Your task to perform on an android device: toggle translation in the chrome app Image 0: 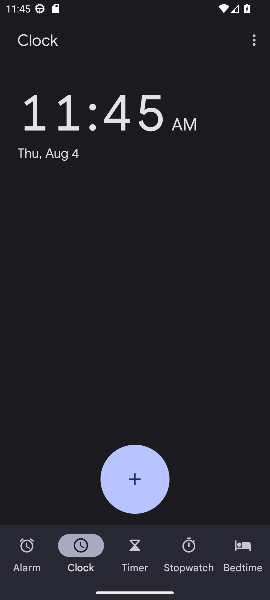
Step 0: press home button
Your task to perform on an android device: toggle translation in the chrome app Image 1: 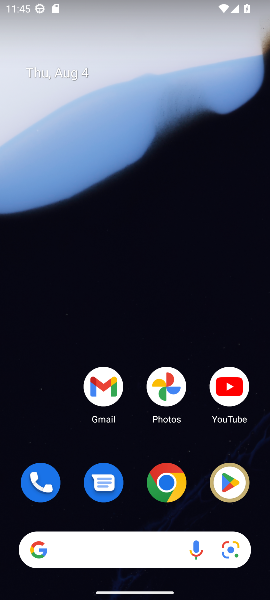
Step 1: click (182, 483)
Your task to perform on an android device: toggle translation in the chrome app Image 2: 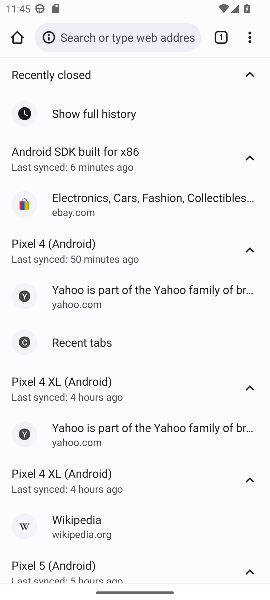
Step 2: click (255, 36)
Your task to perform on an android device: toggle translation in the chrome app Image 3: 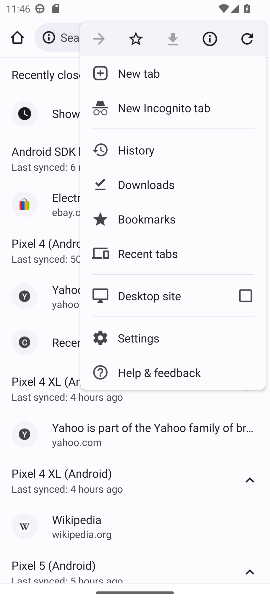
Step 3: click (147, 331)
Your task to perform on an android device: toggle translation in the chrome app Image 4: 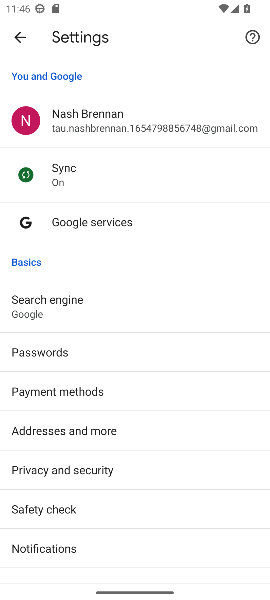
Step 4: drag from (108, 520) to (112, 275)
Your task to perform on an android device: toggle translation in the chrome app Image 5: 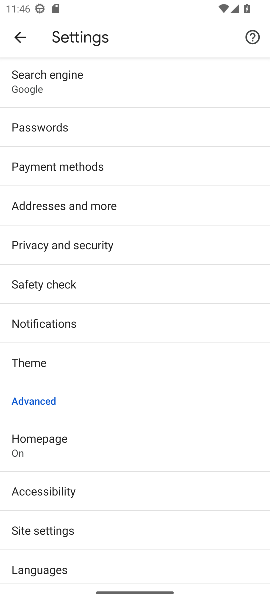
Step 5: click (77, 572)
Your task to perform on an android device: toggle translation in the chrome app Image 6: 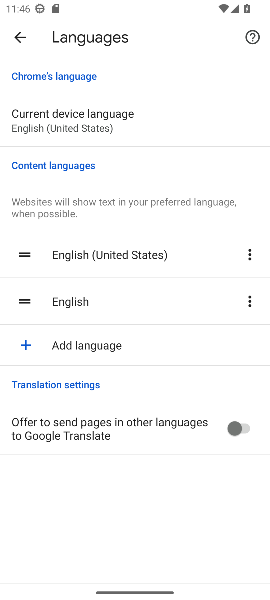
Step 6: click (239, 428)
Your task to perform on an android device: toggle translation in the chrome app Image 7: 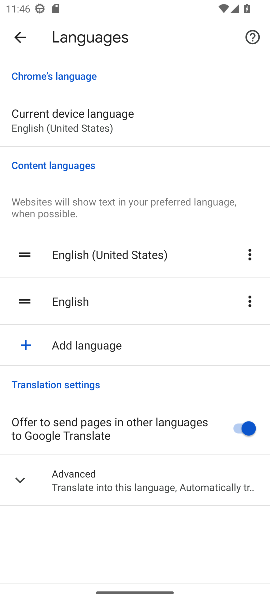
Step 7: task complete